Your task to perform on an android device: What's the weather? Image 0: 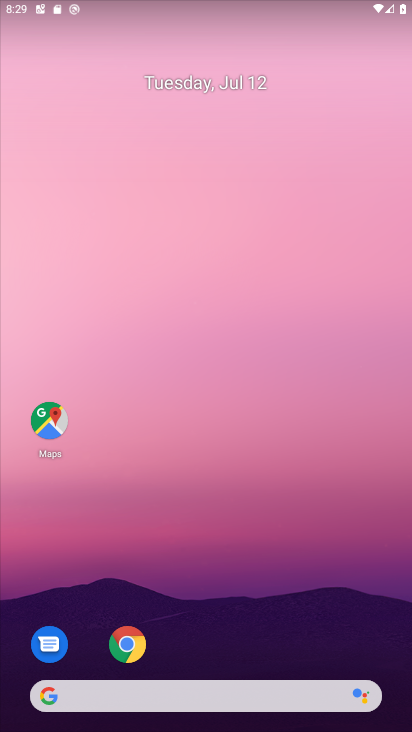
Step 0: drag from (337, 596) to (166, 7)
Your task to perform on an android device: What's the weather? Image 1: 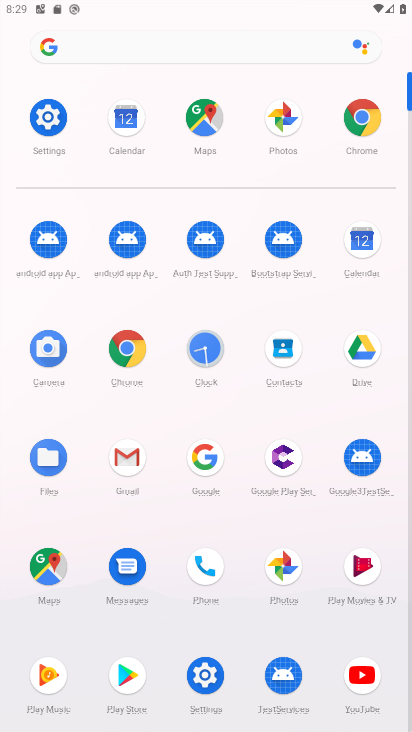
Step 1: click (207, 457)
Your task to perform on an android device: What's the weather? Image 2: 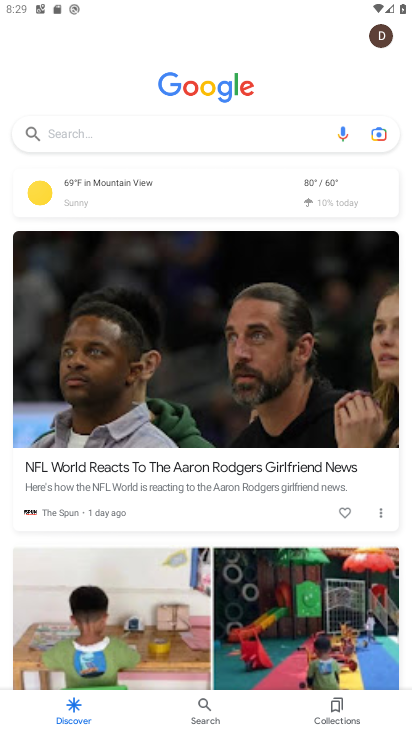
Step 2: click (49, 179)
Your task to perform on an android device: What's the weather? Image 3: 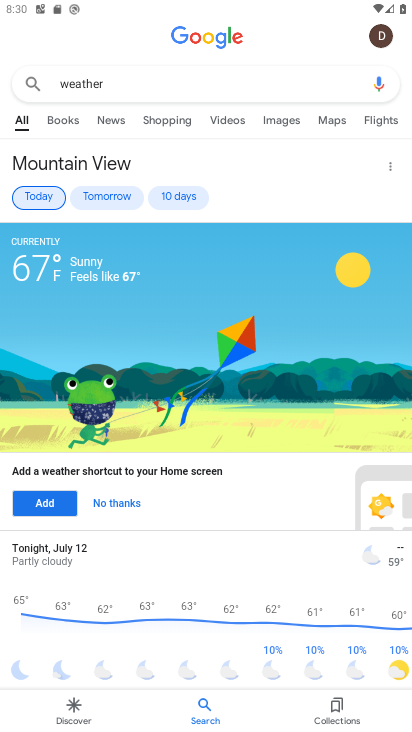
Step 3: task complete